Your task to perform on an android device: move a message to another label in the gmail app Image 0: 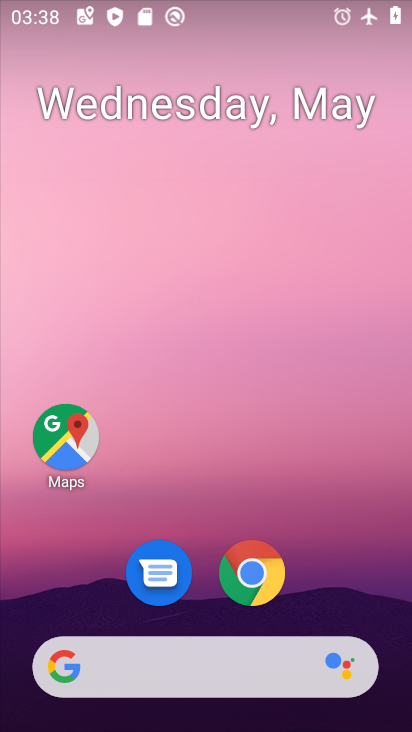
Step 0: drag from (237, 722) to (224, 111)
Your task to perform on an android device: move a message to another label in the gmail app Image 1: 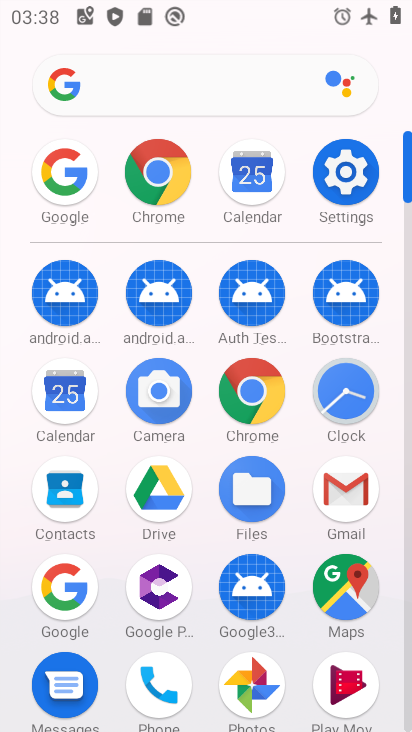
Step 1: click (349, 486)
Your task to perform on an android device: move a message to another label in the gmail app Image 2: 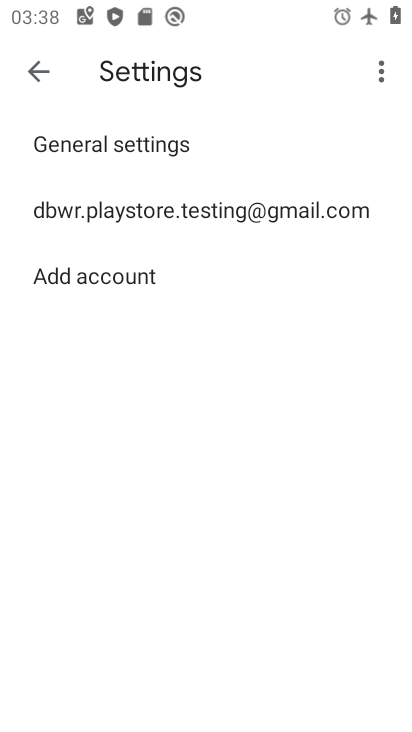
Step 2: click (37, 70)
Your task to perform on an android device: move a message to another label in the gmail app Image 3: 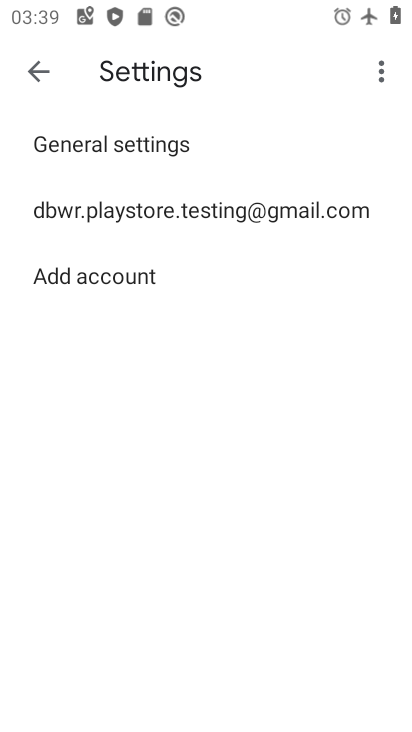
Step 3: click (40, 71)
Your task to perform on an android device: move a message to another label in the gmail app Image 4: 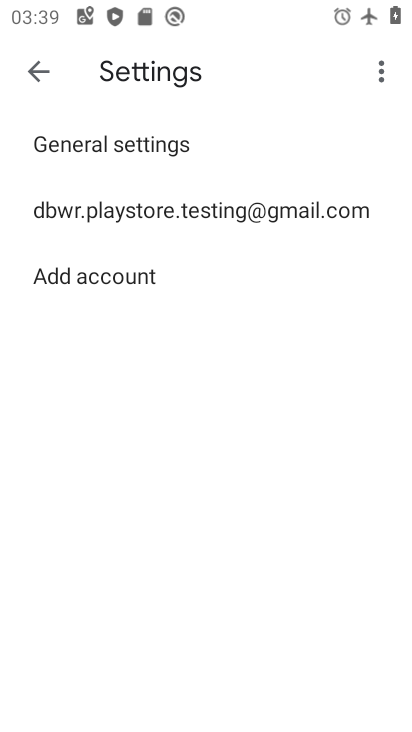
Step 4: click (38, 65)
Your task to perform on an android device: move a message to another label in the gmail app Image 5: 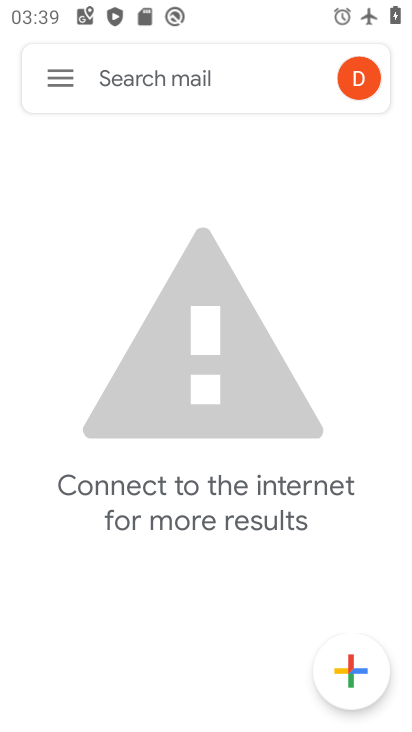
Step 5: task complete